Your task to perform on an android device: What is the recent news? Image 0: 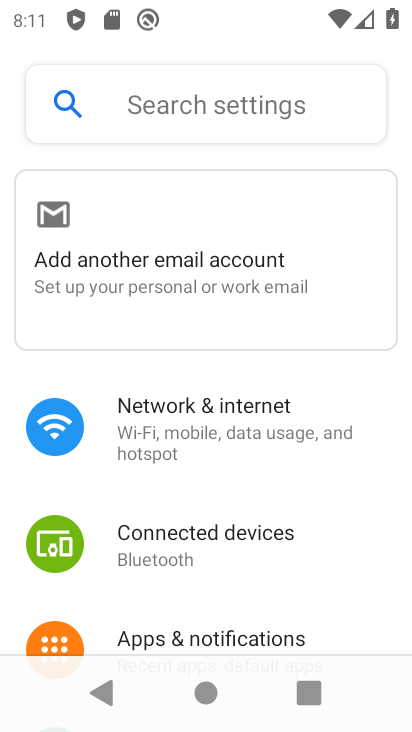
Step 0: press home button
Your task to perform on an android device: What is the recent news? Image 1: 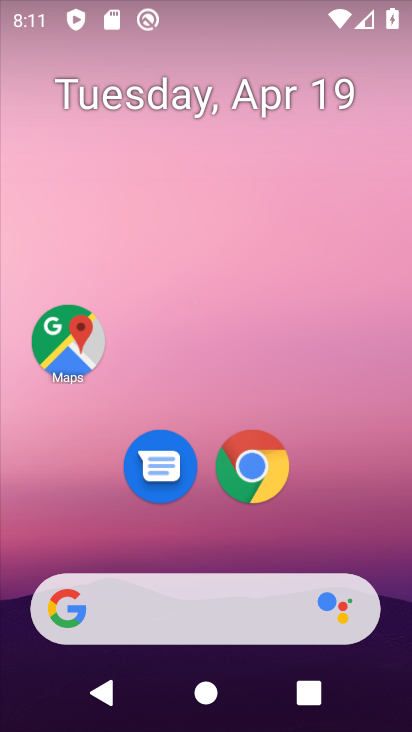
Step 1: click (154, 574)
Your task to perform on an android device: What is the recent news? Image 2: 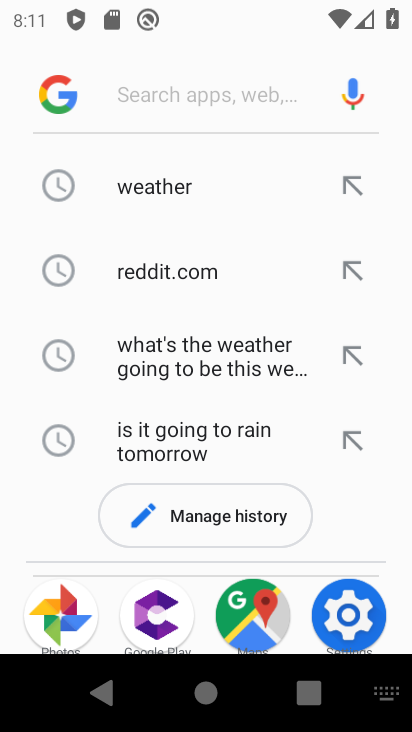
Step 2: click (93, 707)
Your task to perform on an android device: What is the recent news? Image 3: 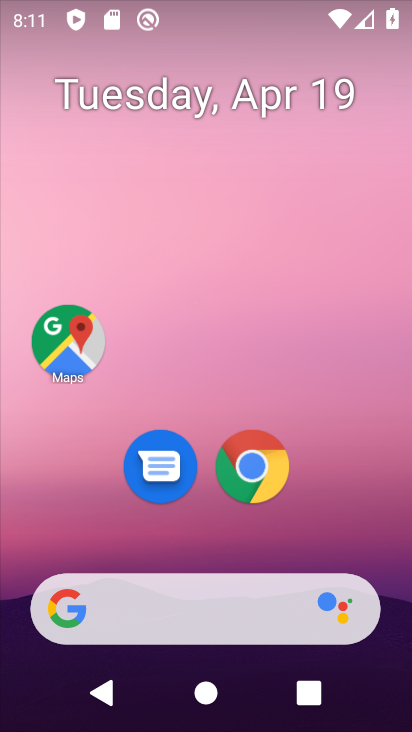
Step 3: click (242, 500)
Your task to perform on an android device: What is the recent news? Image 4: 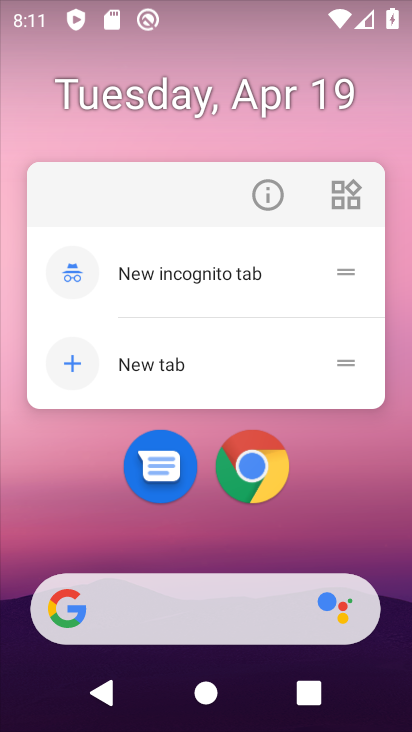
Step 4: click (242, 499)
Your task to perform on an android device: What is the recent news? Image 5: 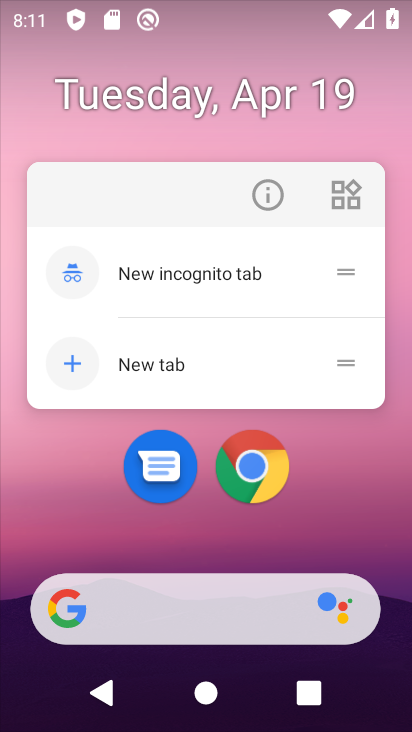
Step 5: click (245, 486)
Your task to perform on an android device: What is the recent news? Image 6: 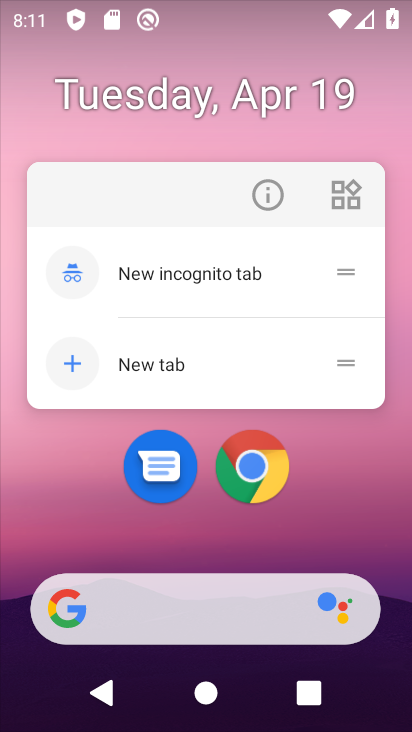
Step 6: click (245, 486)
Your task to perform on an android device: What is the recent news? Image 7: 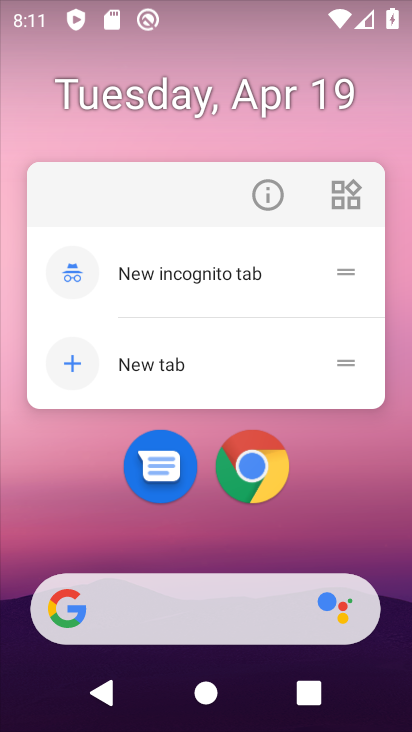
Step 7: click (245, 486)
Your task to perform on an android device: What is the recent news? Image 8: 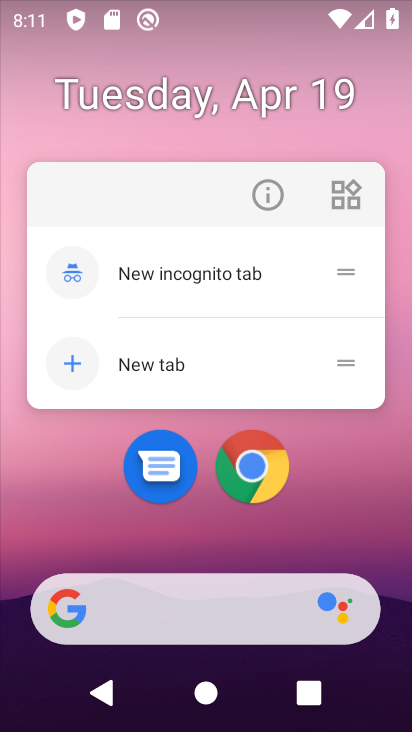
Step 8: click (245, 486)
Your task to perform on an android device: What is the recent news? Image 9: 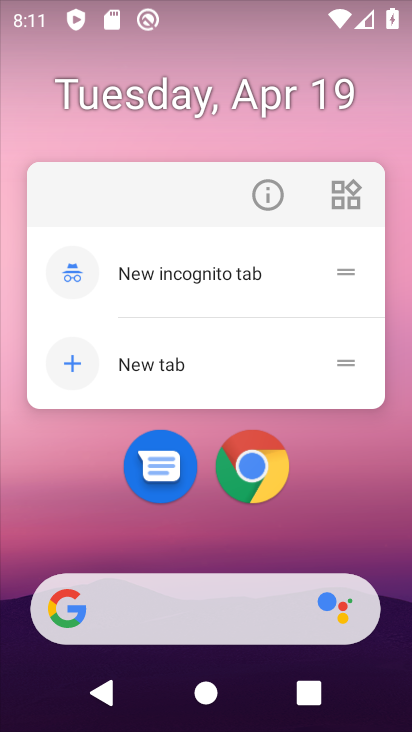
Step 9: click (245, 487)
Your task to perform on an android device: What is the recent news? Image 10: 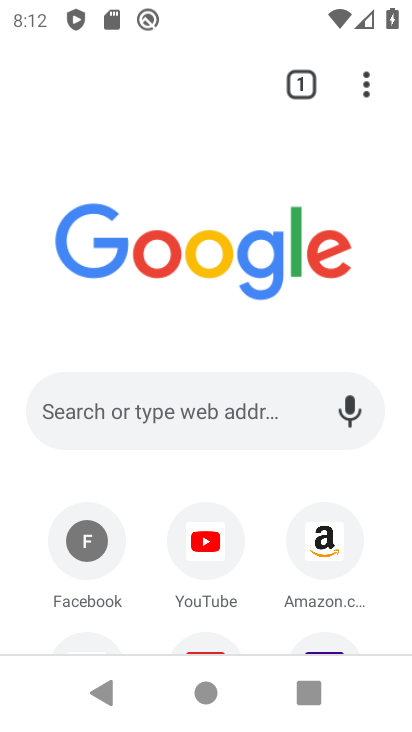
Step 10: task complete